Your task to perform on an android device: see sites visited before in the chrome app Image 0: 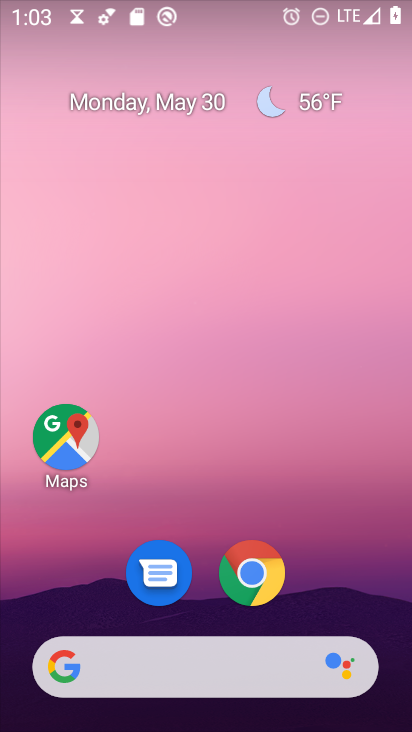
Step 0: drag from (236, 650) to (251, 86)
Your task to perform on an android device: see sites visited before in the chrome app Image 1: 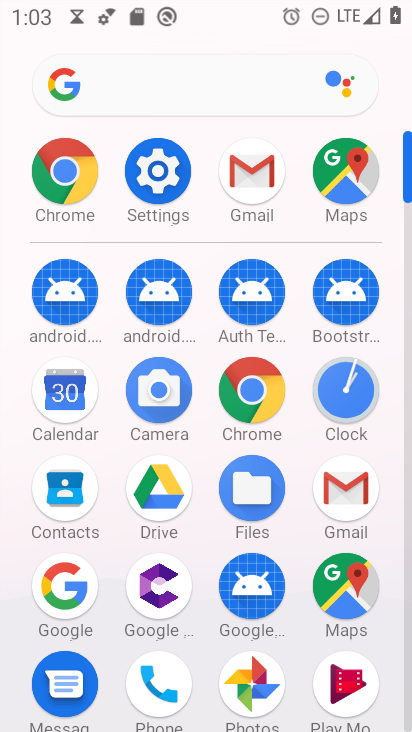
Step 1: click (274, 391)
Your task to perform on an android device: see sites visited before in the chrome app Image 2: 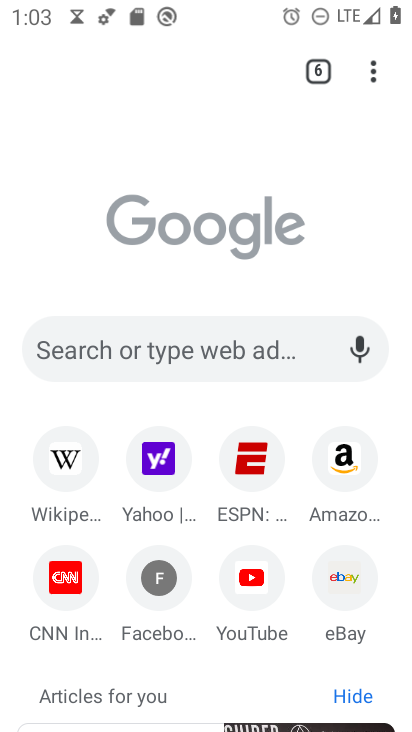
Step 2: task complete